Your task to perform on an android device: Look up the best rated book on Goodreads Image 0: 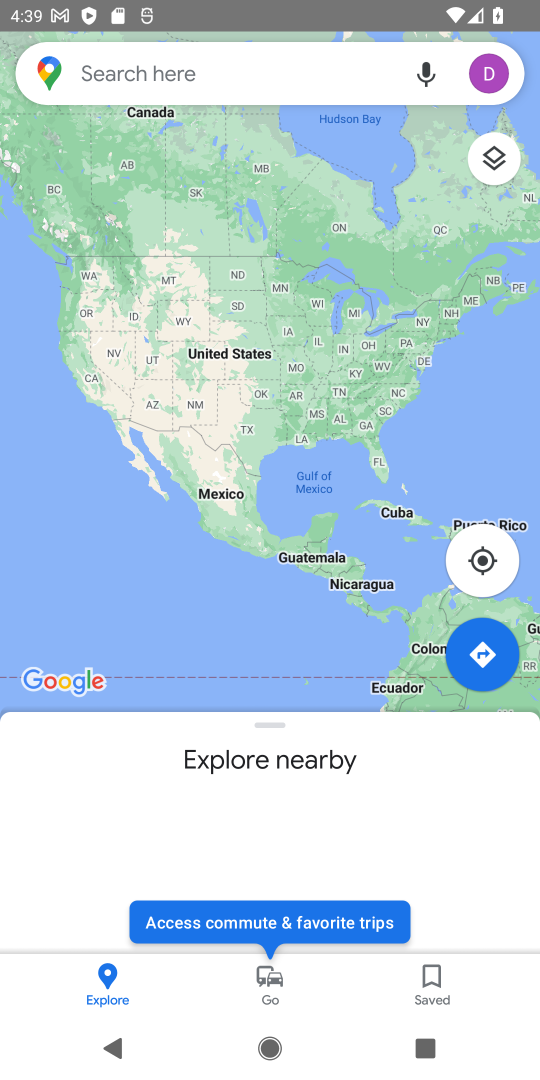
Step 0: task complete